Your task to perform on an android device: manage bookmarks in the chrome app Image 0: 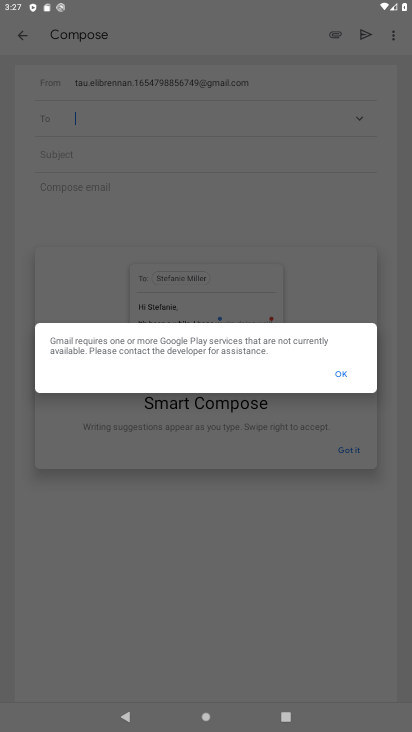
Step 0: press home button
Your task to perform on an android device: manage bookmarks in the chrome app Image 1: 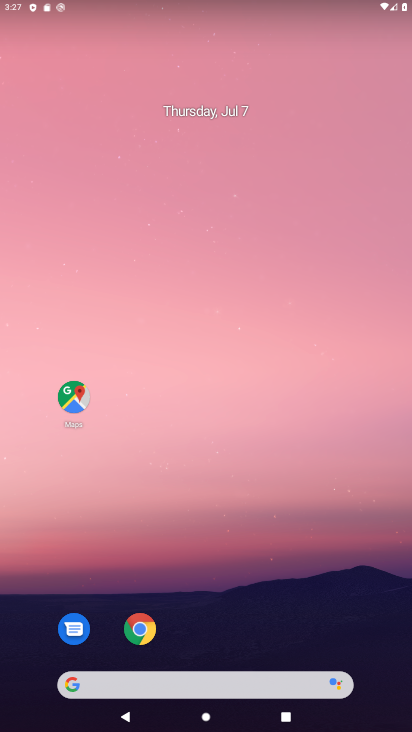
Step 1: click (77, 385)
Your task to perform on an android device: manage bookmarks in the chrome app Image 2: 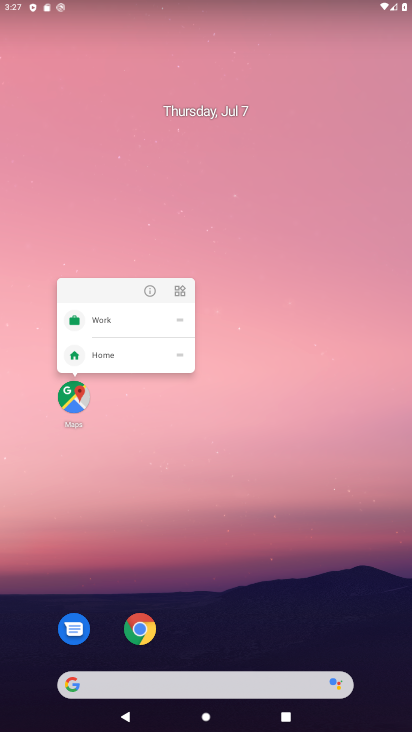
Step 2: click (135, 632)
Your task to perform on an android device: manage bookmarks in the chrome app Image 3: 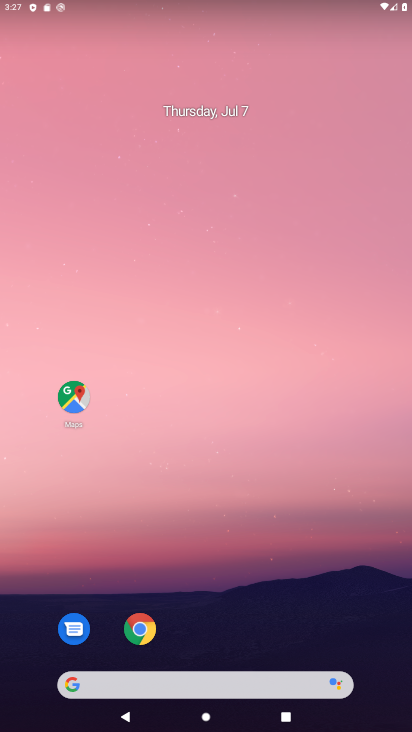
Step 3: click (136, 628)
Your task to perform on an android device: manage bookmarks in the chrome app Image 4: 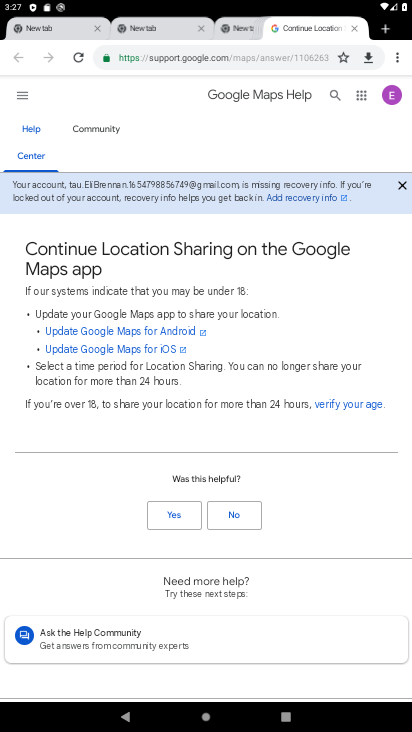
Step 4: click (397, 60)
Your task to perform on an android device: manage bookmarks in the chrome app Image 5: 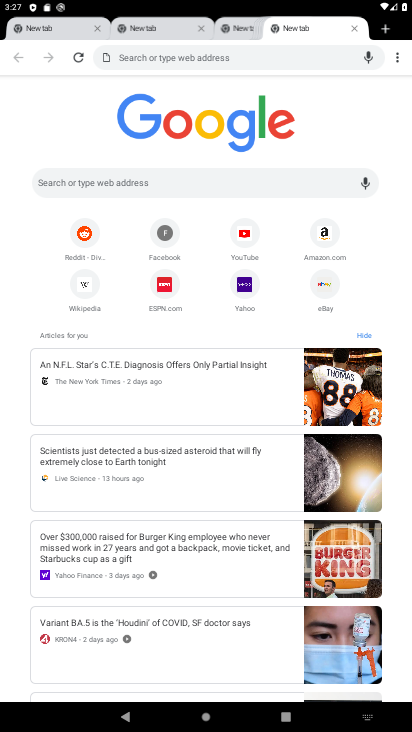
Step 5: click (395, 59)
Your task to perform on an android device: manage bookmarks in the chrome app Image 6: 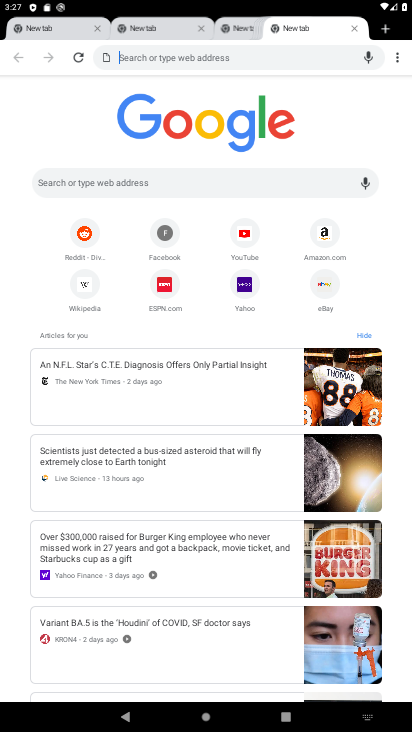
Step 6: click (397, 54)
Your task to perform on an android device: manage bookmarks in the chrome app Image 7: 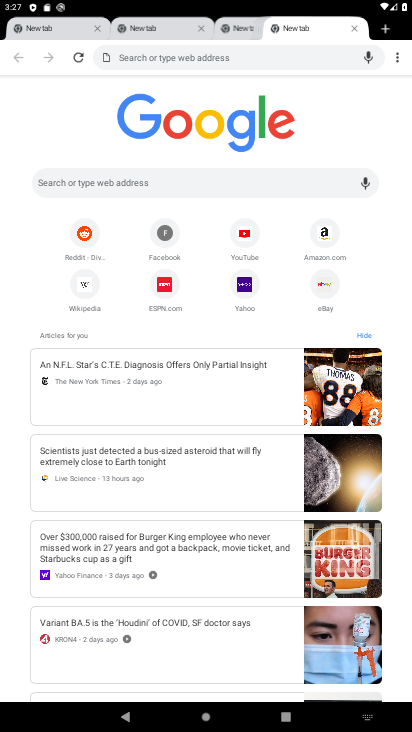
Step 7: click (396, 49)
Your task to perform on an android device: manage bookmarks in the chrome app Image 8: 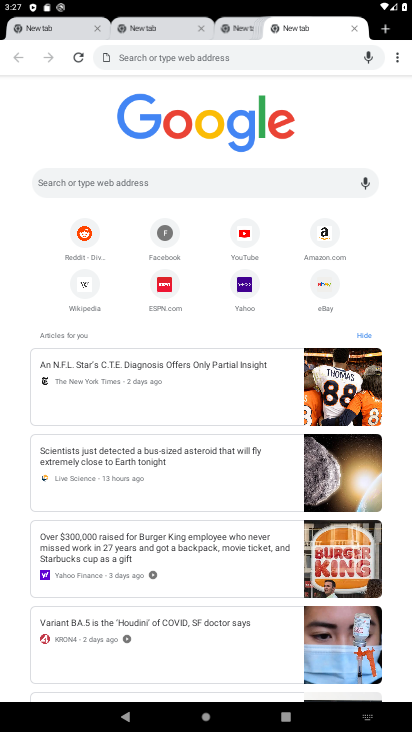
Step 8: task complete